Your task to perform on an android device: Go to battery settings Image 0: 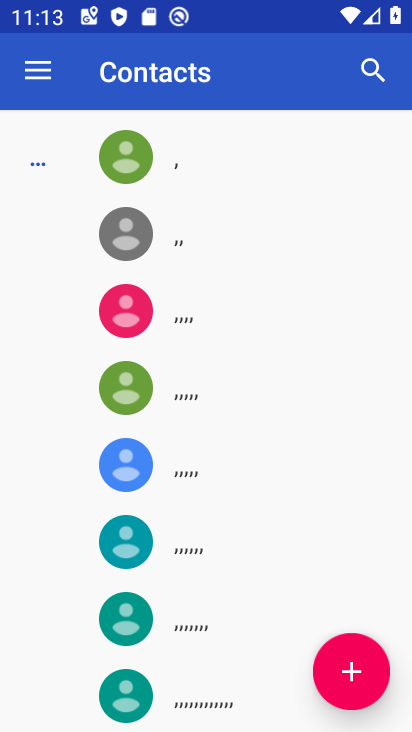
Step 0: press home button
Your task to perform on an android device: Go to battery settings Image 1: 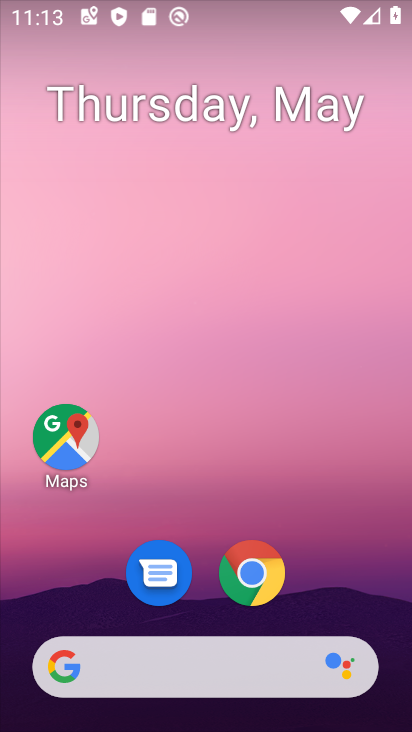
Step 1: drag from (352, 542) to (274, 172)
Your task to perform on an android device: Go to battery settings Image 2: 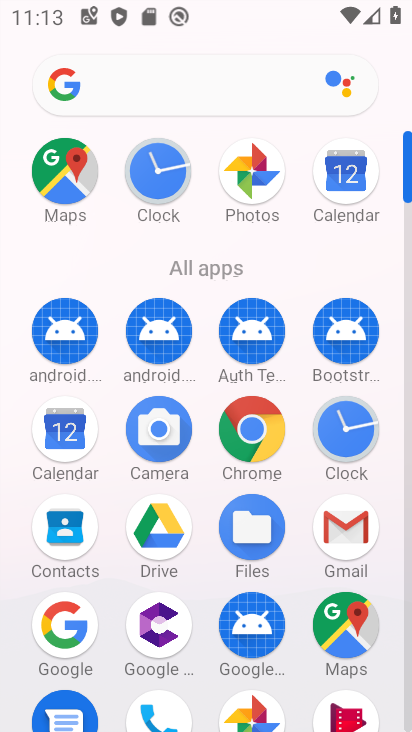
Step 2: drag from (245, 264) to (184, 39)
Your task to perform on an android device: Go to battery settings Image 3: 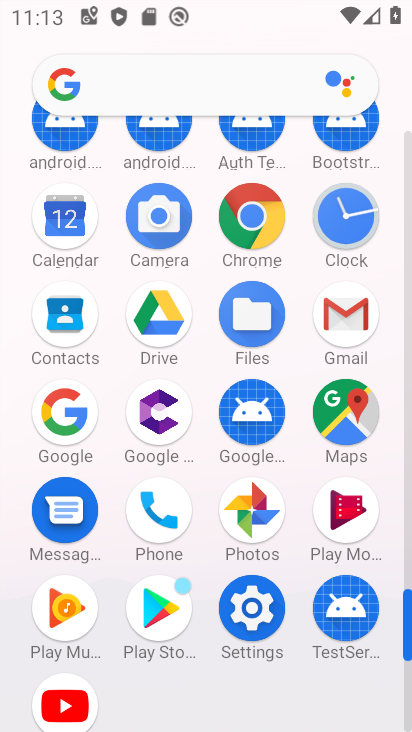
Step 3: click (248, 627)
Your task to perform on an android device: Go to battery settings Image 4: 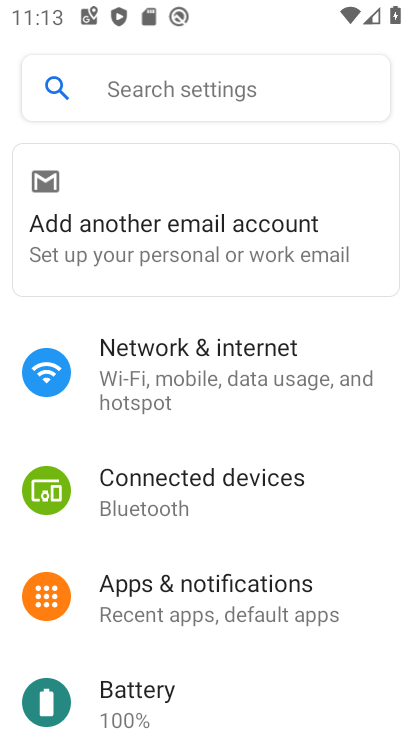
Step 4: click (175, 686)
Your task to perform on an android device: Go to battery settings Image 5: 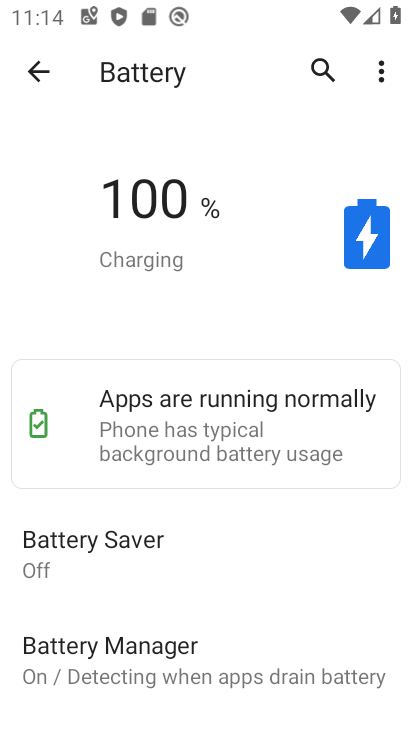
Step 5: task complete